Your task to perform on an android device: Open the calendar app, open the side menu, and click the "Day" option Image 0: 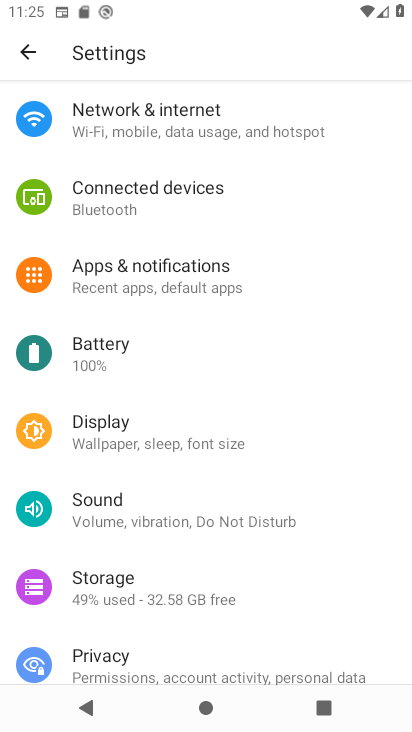
Step 0: press home button
Your task to perform on an android device: Open the calendar app, open the side menu, and click the "Day" option Image 1: 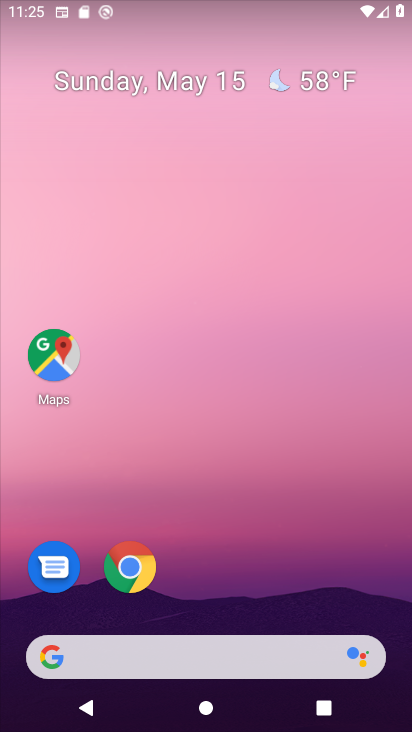
Step 1: click (155, 75)
Your task to perform on an android device: Open the calendar app, open the side menu, and click the "Day" option Image 2: 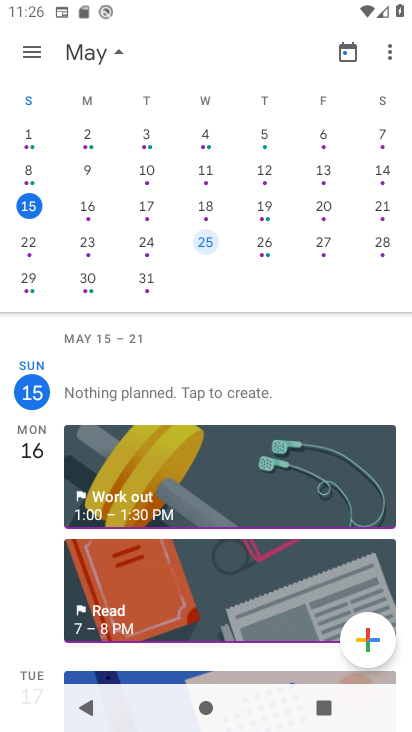
Step 2: click (56, 60)
Your task to perform on an android device: Open the calendar app, open the side menu, and click the "Day" option Image 3: 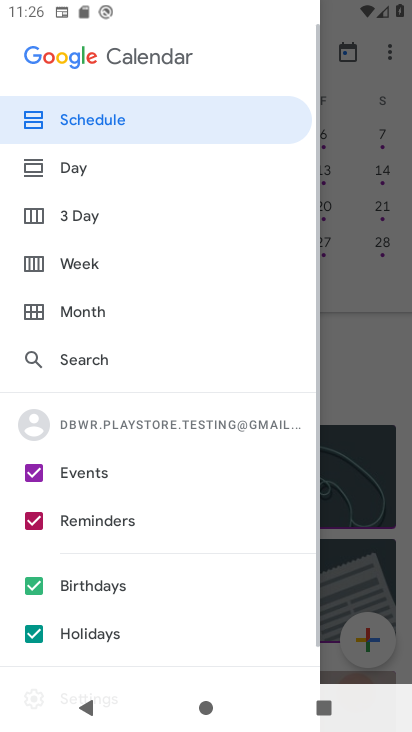
Step 3: click (92, 171)
Your task to perform on an android device: Open the calendar app, open the side menu, and click the "Day" option Image 4: 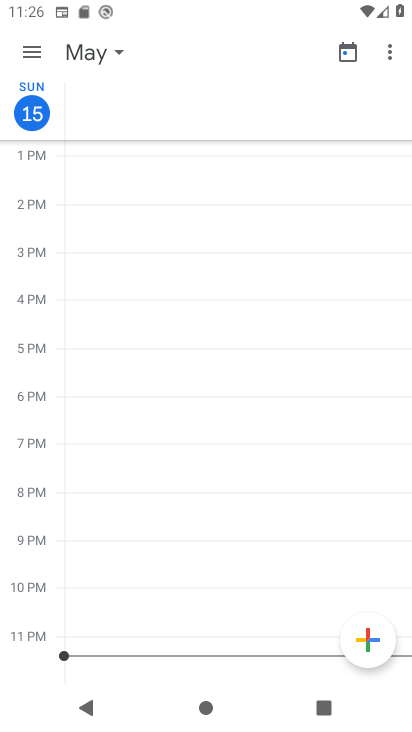
Step 4: task complete